Your task to perform on an android device: What's on my calendar tomorrow? Image 0: 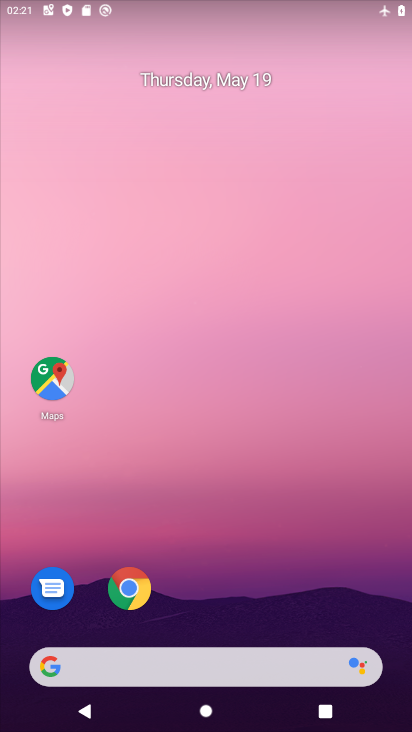
Step 0: drag from (232, 578) to (214, 87)
Your task to perform on an android device: What's on my calendar tomorrow? Image 1: 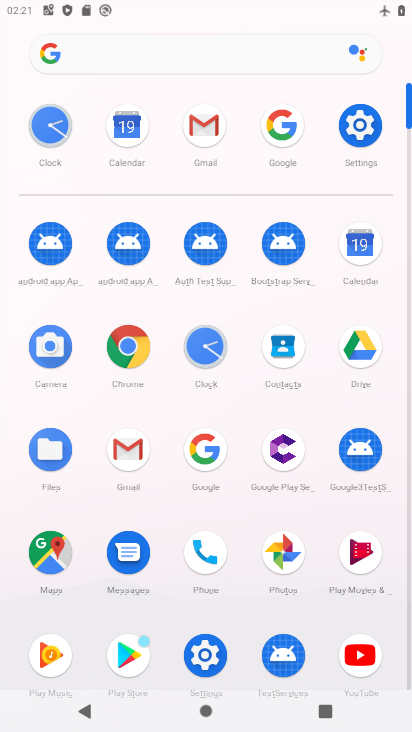
Step 1: click (356, 247)
Your task to perform on an android device: What's on my calendar tomorrow? Image 2: 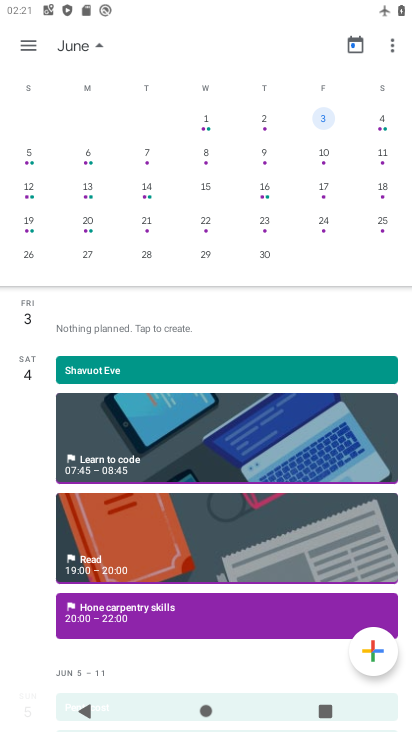
Step 2: drag from (26, 274) to (406, 238)
Your task to perform on an android device: What's on my calendar tomorrow? Image 3: 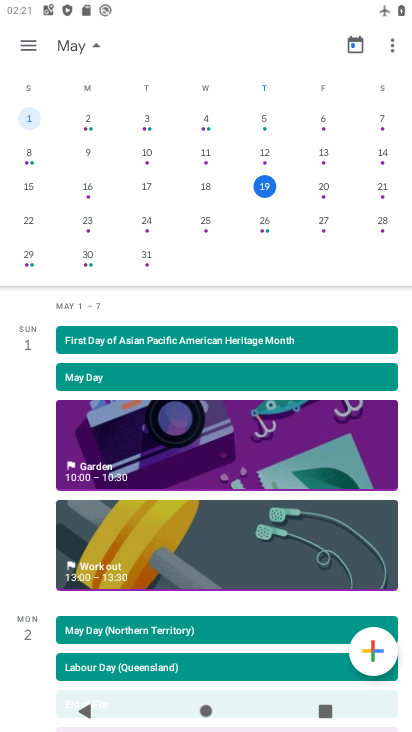
Step 3: click (323, 188)
Your task to perform on an android device: What's on my calendar tomorrow? Image 4: 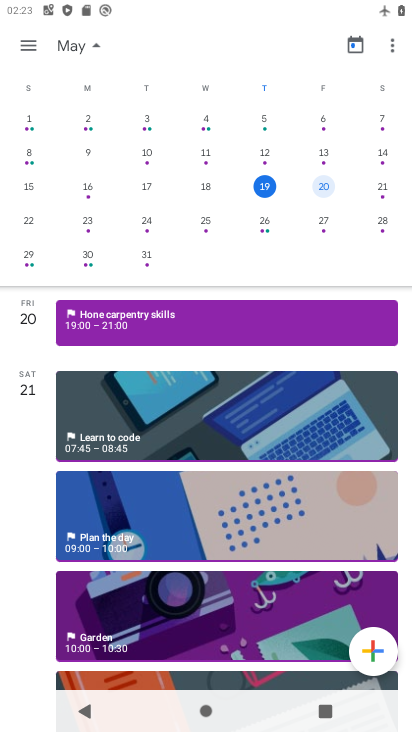
Step 4: task complete